Your task to perform on an android device: turn on the 24-hour format for clock Image 0: 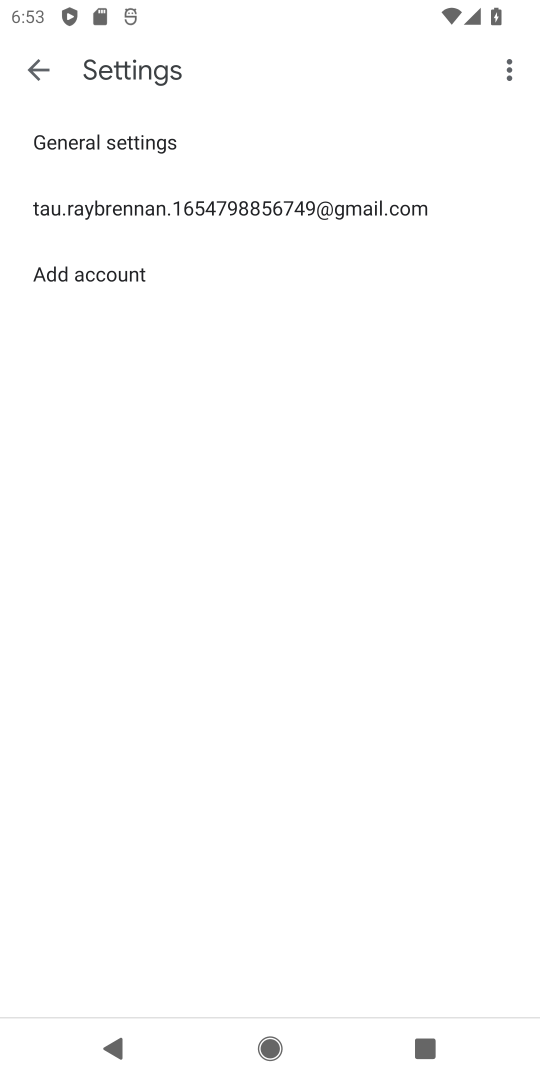
Step 0: press home button
Your task to perform on an android device: turn on the 24-hour format for clock Image 1: 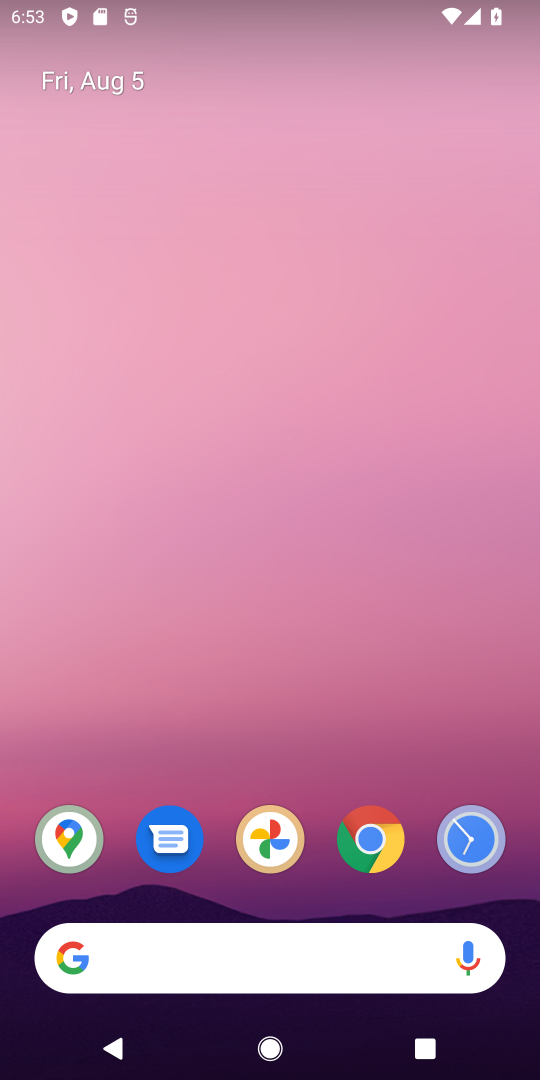
Step 1: drag from (317, 895) to (324, 142)
Your task to perform on an android device: turn on the 24-hour format for clock Image 2: 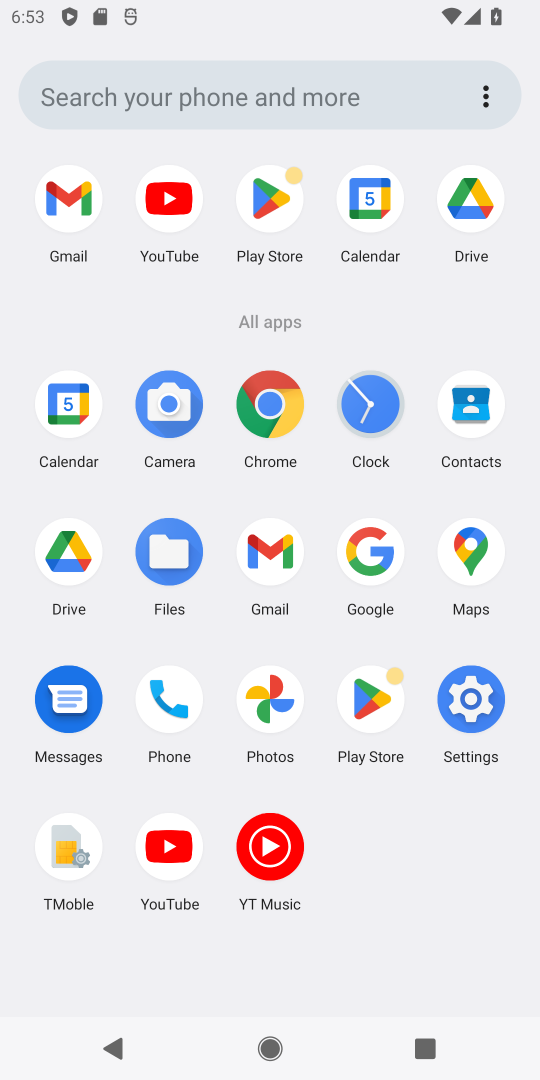
Step 2: click (372, 409)
Your task to perform on an android device: turn on the 24-hour format for clock Image 3: 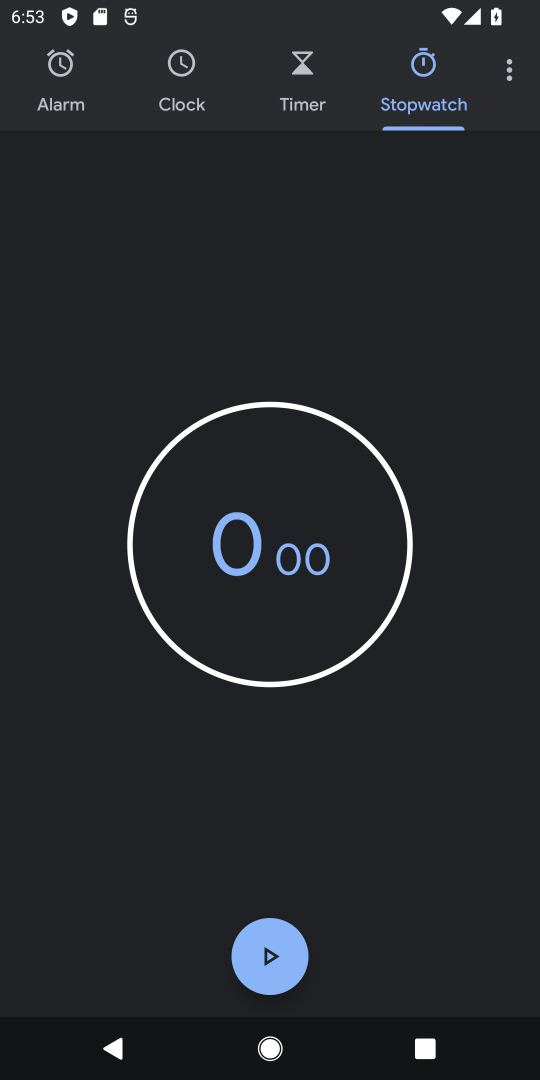
Step 3: click (511, 78)
Your task to perform on an android device: turn on the 24-hour format for clock Image 4: 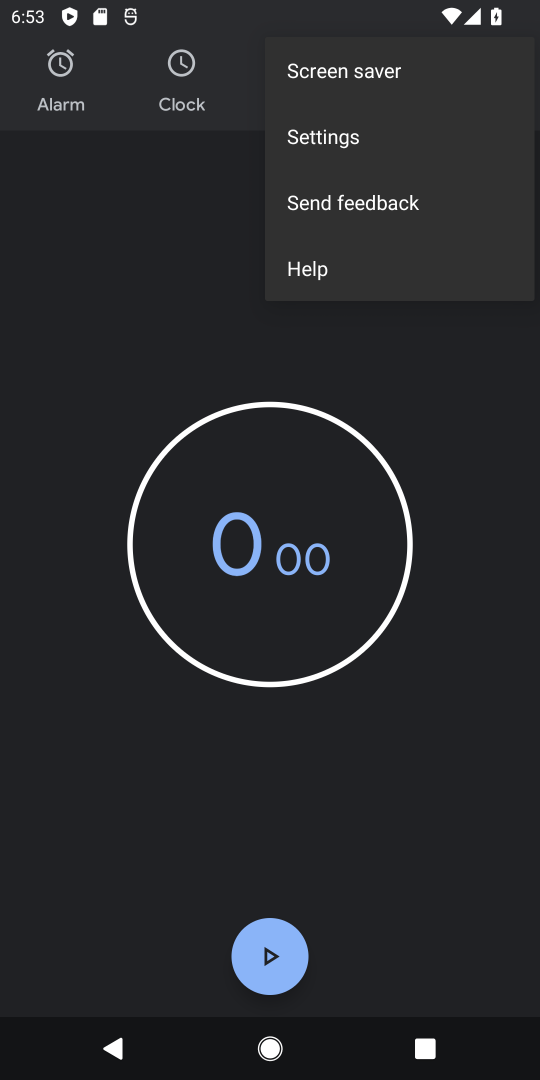
Step 4: click (311, 131)
Your task to perform on an android device: turn on the 24-hour format for clock Image 5: 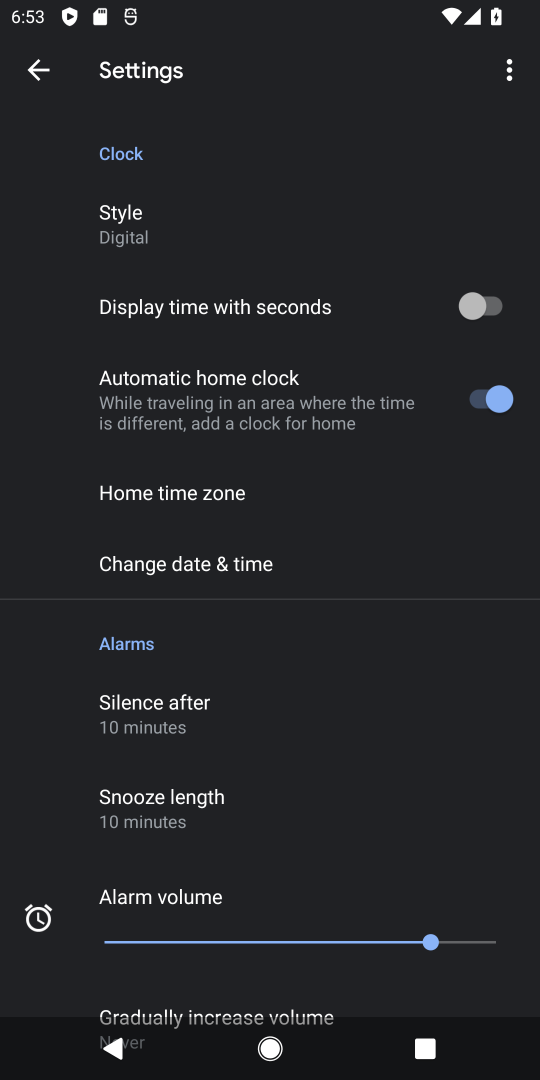
Step 5: click (224, 563)
Your task to perform on an android device: turn on the 24-hour format for clock Image 6: 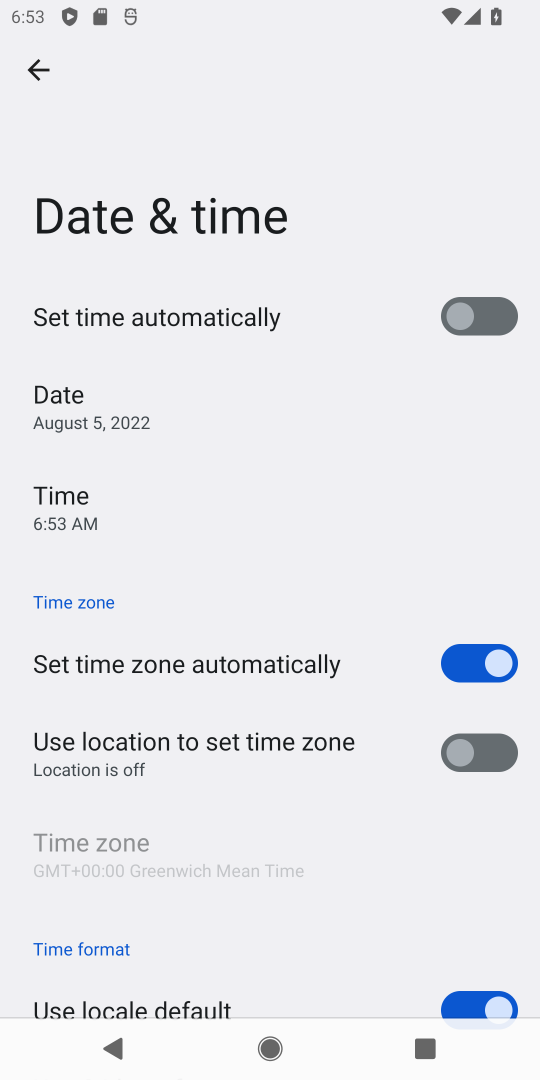
Step 6: drag from (278, 892) to (261, 475)
Your task to perform on an android device: turn on the 24-hour format for clock Image 7: 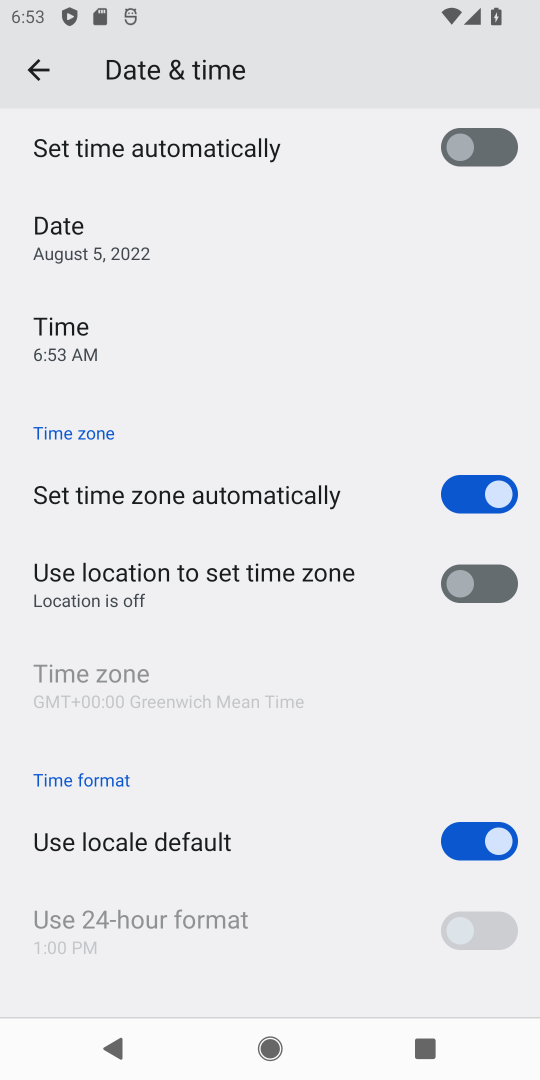
Step 7: click (488, 833)
Your task to perform on an android device: turn on the 24-hour format for clock Image 8: 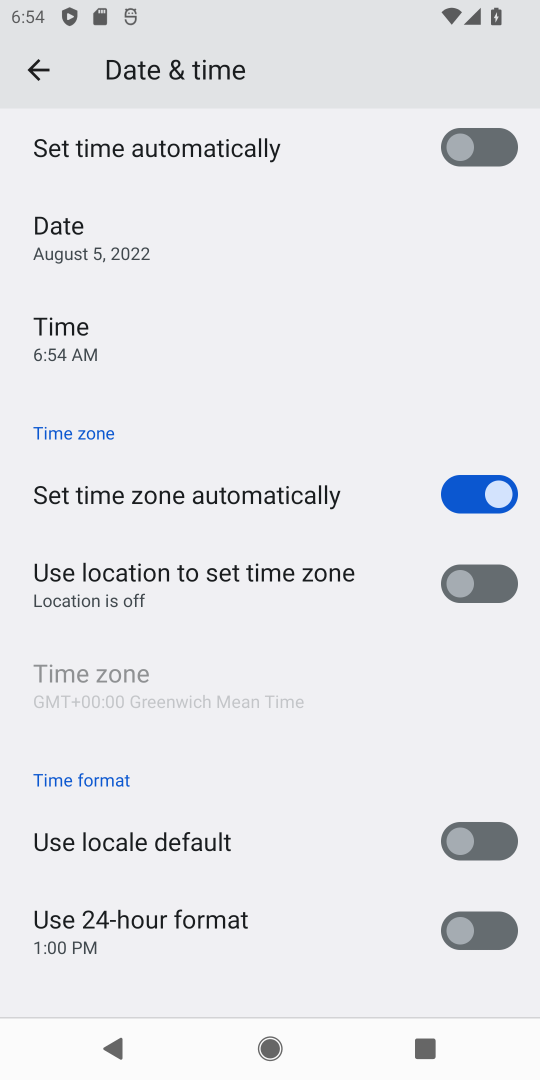
Step 8: click (489, 928)
Your task to perform on an android device: turn on the 24-hour format for clock Image 9: 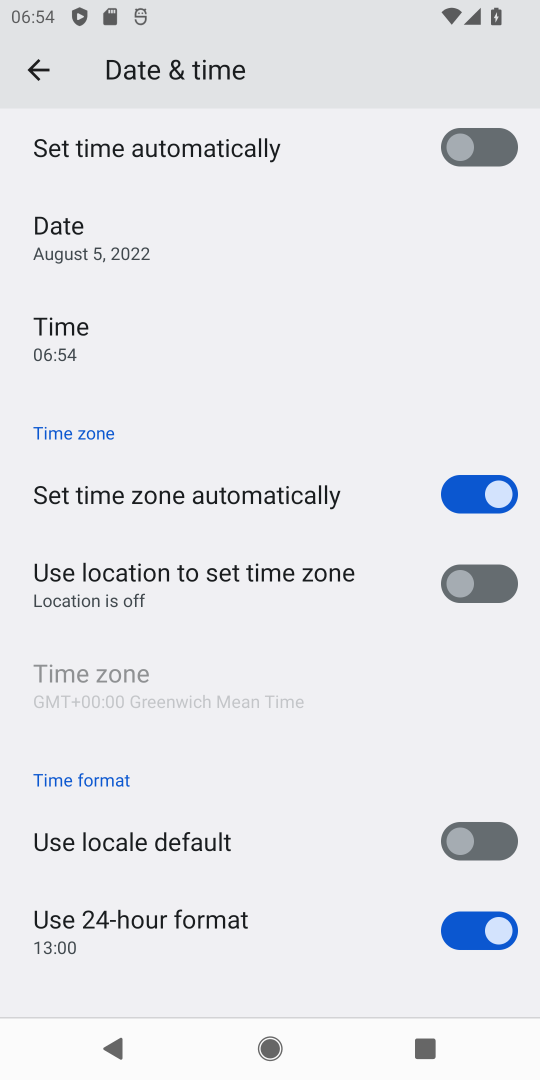
Step 9: task complete